Your task to perform on an android device: delete browsing data in the chrome app Image 0: 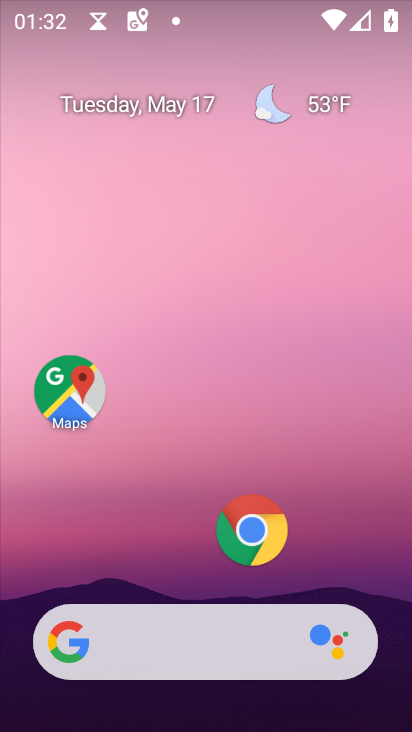
Step 0: click (247, 536)
Your task to perform on an android device: delete browsing data in the chrome app Image 1: 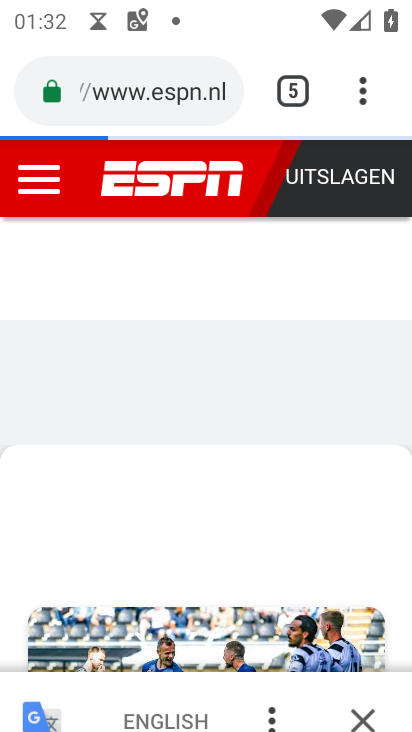
Step 1: click (372, 97)
Your task to perform on an android device: delete browsing data in the chrome app Image 2: 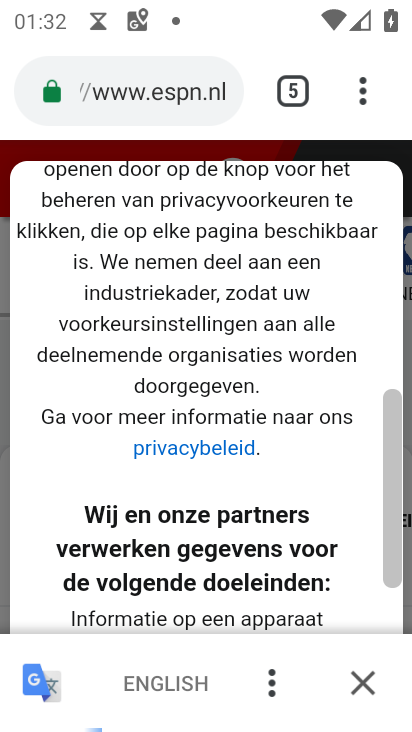
Step 2: click (372, 97)
Your task to perform on an android device: delete browsing data in the chrome app Image 3: 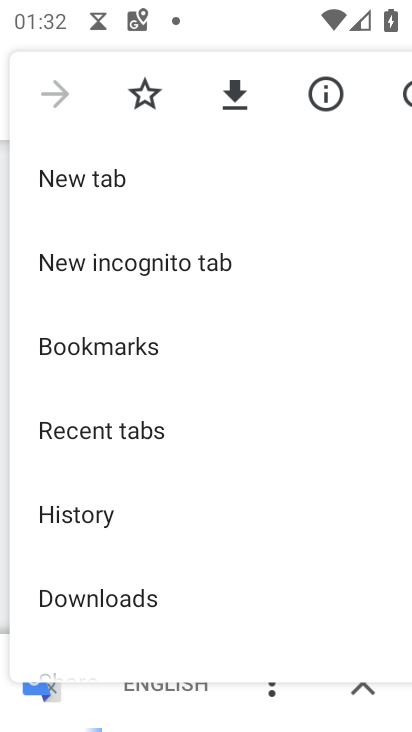
Step 3: drag from (187, 580) to (260, 224)
Your task to perform on an android device: delete browsing data in the chrome app Image 4: 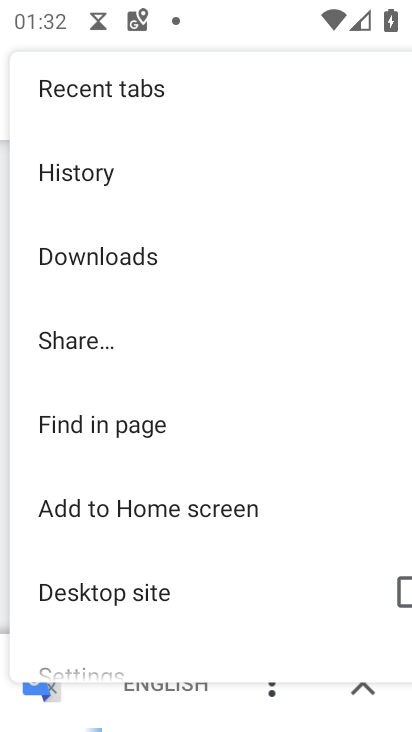
Step 4: click (77, 170)
Your task to perform on an android device: delete browsing data in the chrome app Image 5: 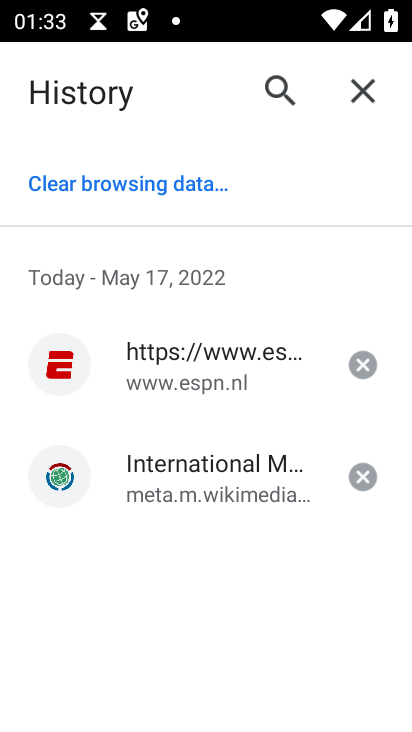
Step 5: click (120, 184)
Your task to perform on an android device: delete browsing data in the chrome app Image 6: 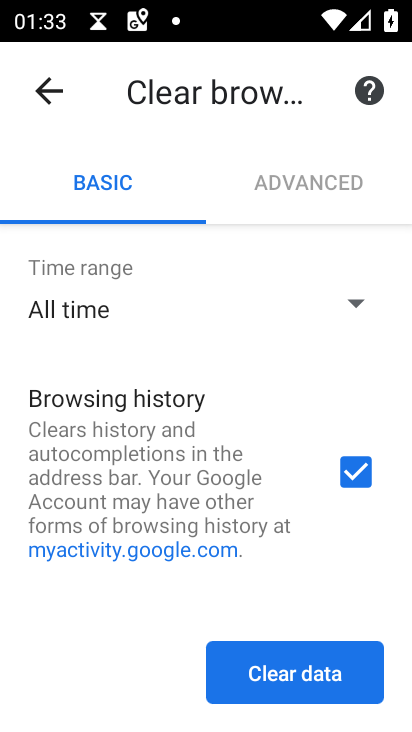
Step 6: click (277, 668)
Your task to perform on an android device: delete browsing data in the chrome app Image 7: 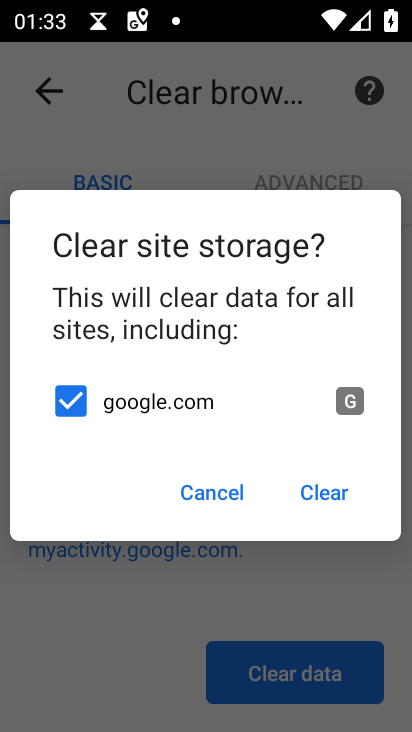
Step 7: click (320, 495)
Your task to perform on an android device: delete browsing data in the chrome app Image 8: 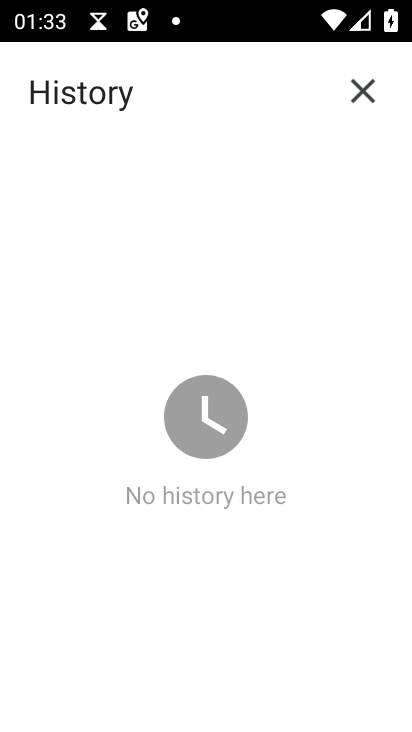
Step 8: task complete